Your task to perform on an android device: Go to Yahoo.com Image 0: 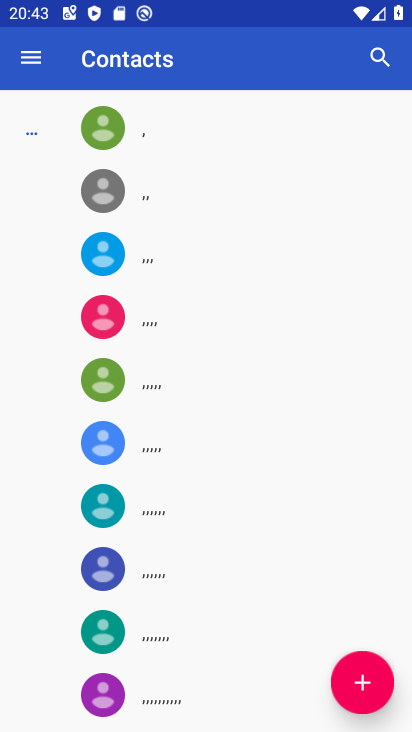
Step 0: press home button
Your task to perform on an android device: Go to Yahoo.com Image 1: 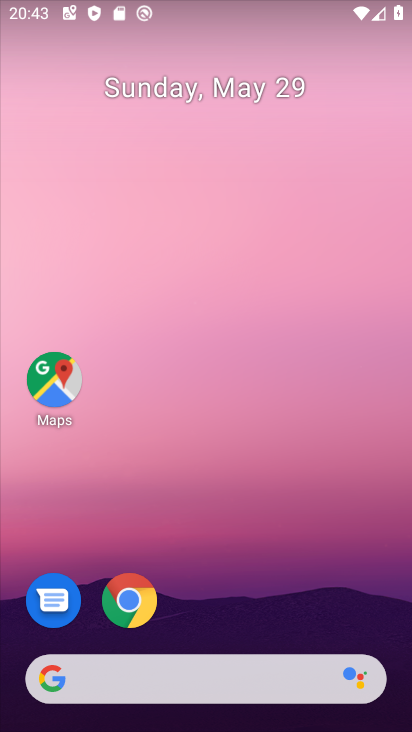
Step 1: drag from (289, 602) to (277, 251)
Your task to perform on an android device: Go to Yahoo.com Image 2: 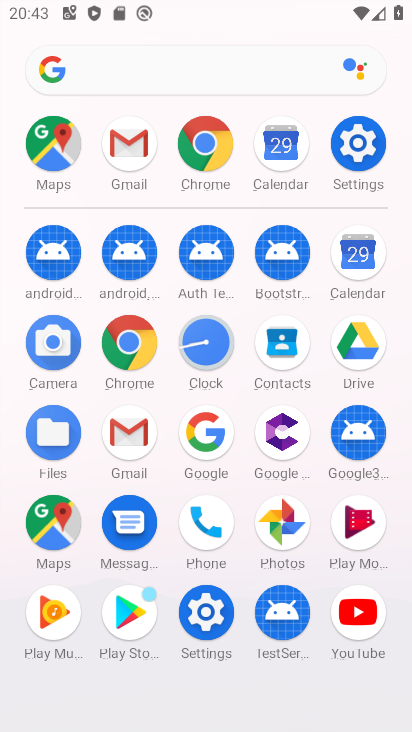
Step 2: click (149, 347)
Your task to perform on an android device: Go to Yahoo.com Image 3: 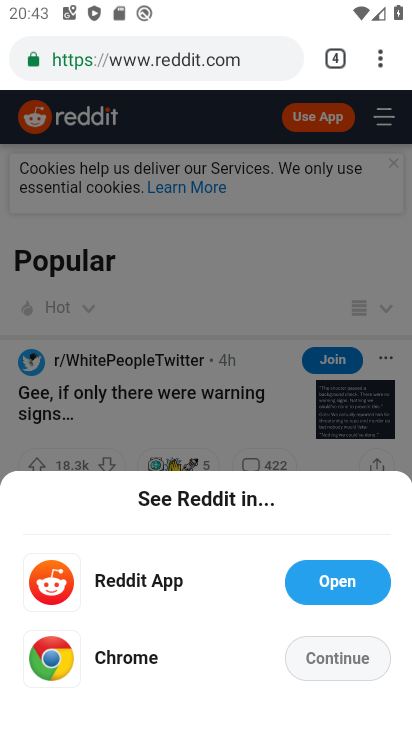
Step 3: click (174, 57)
Your task to perform on an android device: Go to Yahoo.com Image 4: 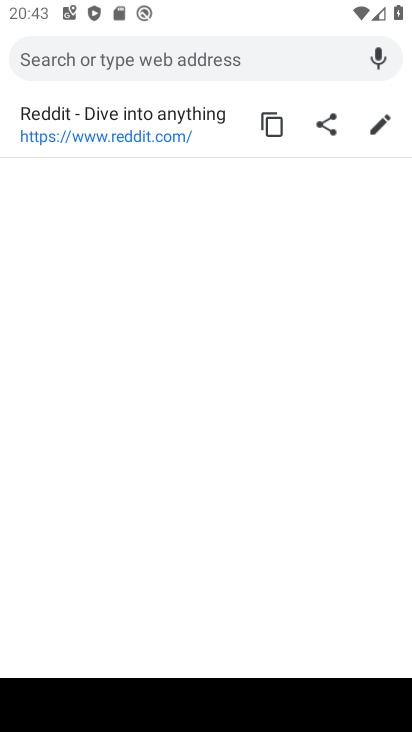
Step 4: type "yahoo.com"
Your task to perform on an android device: Go to Yahoo.com Image 5: 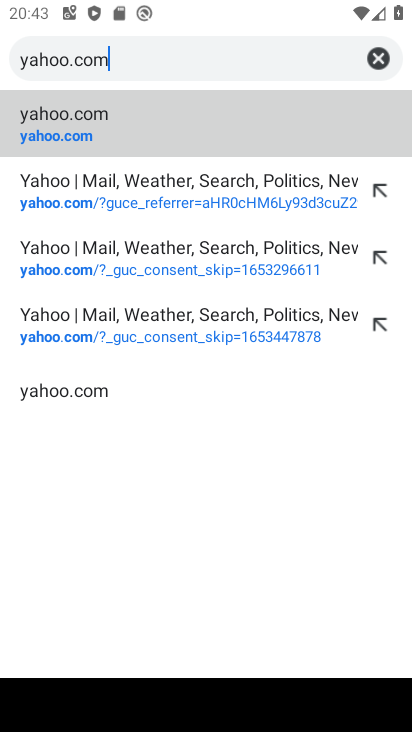
Step 5: click (61, 133)
Your task to perform on an android device: Go to Yahoo.com Image 6: 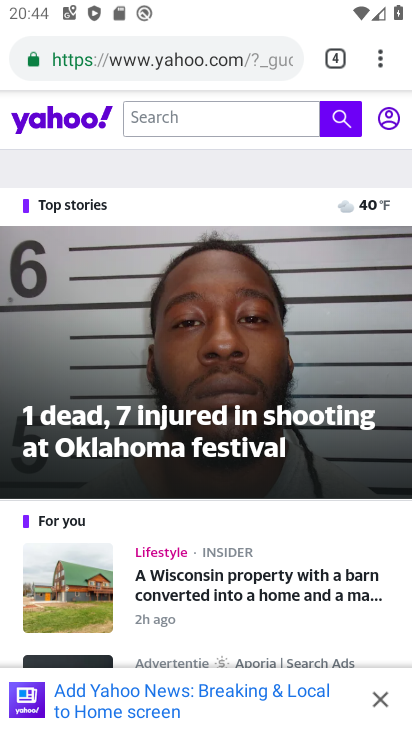
Step 6: task complete